Your task to perform on an android device: turn on sleep mode Image 0: 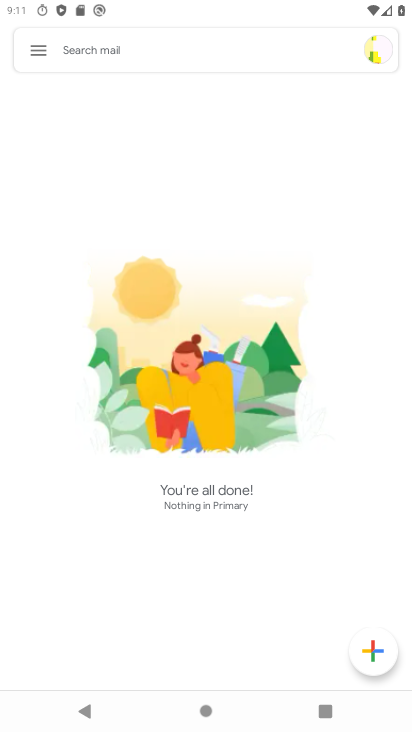
Step 0: press back button
Your task to perform on an android device: turn on sleep mode Image 1: 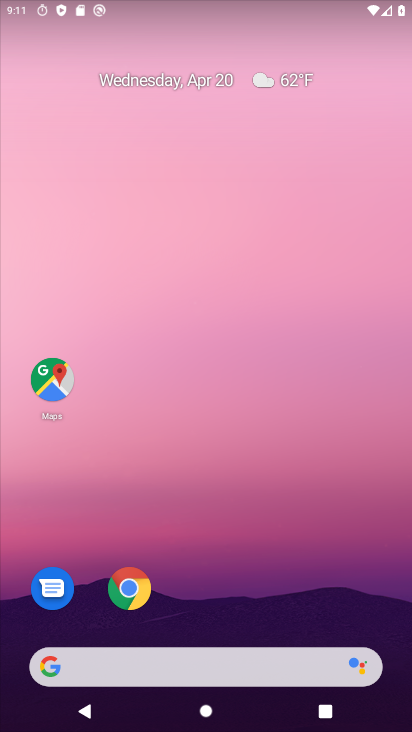
Step 1: drag from (269, 551) to (220, 27)
Your task to perform on an android device: turn on sleep mode Image 2: 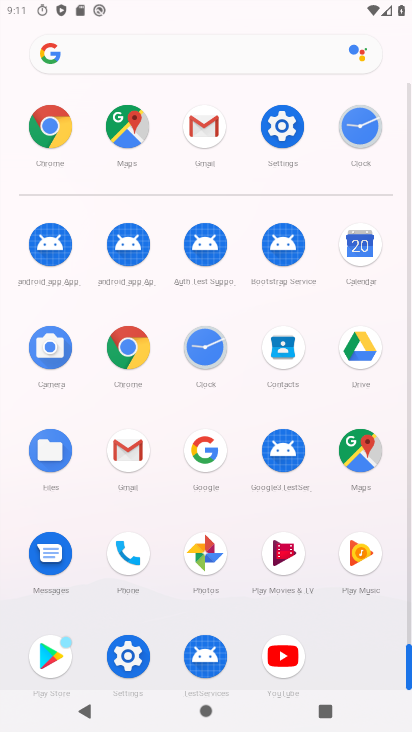
Step 2: drag from (13, 564) to (19, 290)
Your task to perform on an android device: turn on sleep mode Image 3: 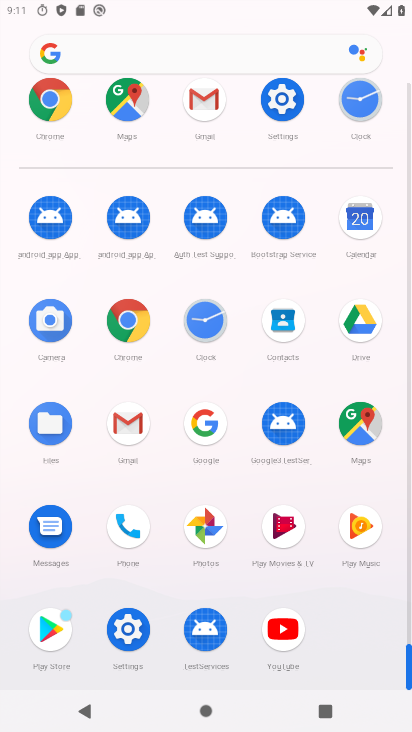
Step 3: click (127, 636)
Your task to perform on an android device: turn on sleep mode Image 4: 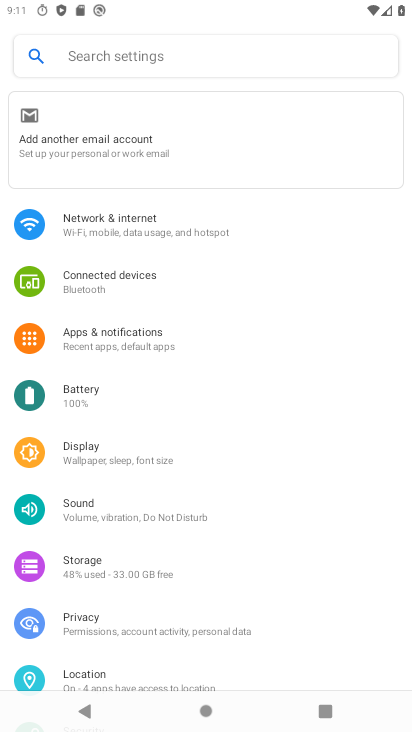
Step 4: click (95, 462)
Your task to perform on an android device: turn on sleep mode Image 5: 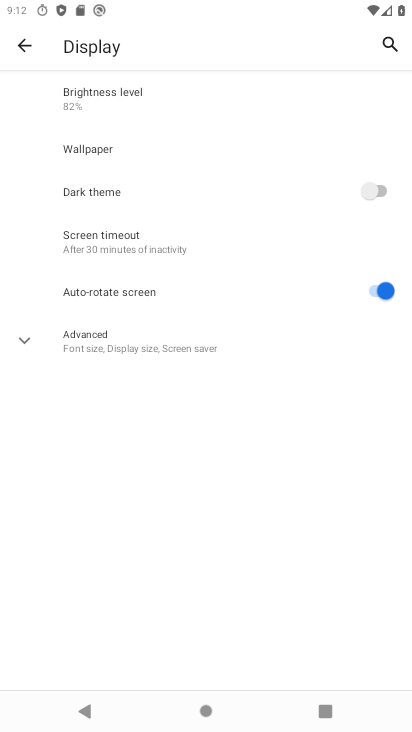
Step 5: click (34, 339)
Your task to perform on an android device: turn on sleep mode Image 6: 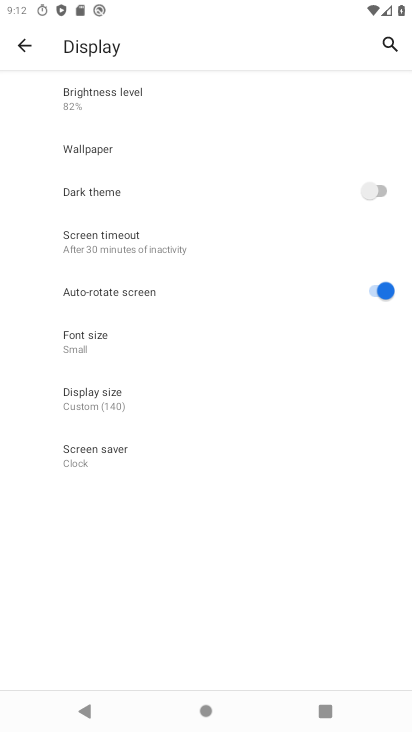
Step 6: task complete